Your task to perform on an android device: check storage Image 0: 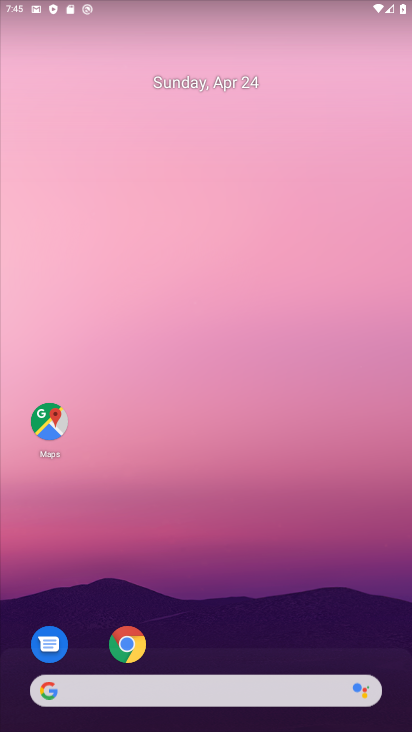
Step 0: drag from (181, 603) to (197, 45)
Your task to perform on an android device: check storage Image 1: 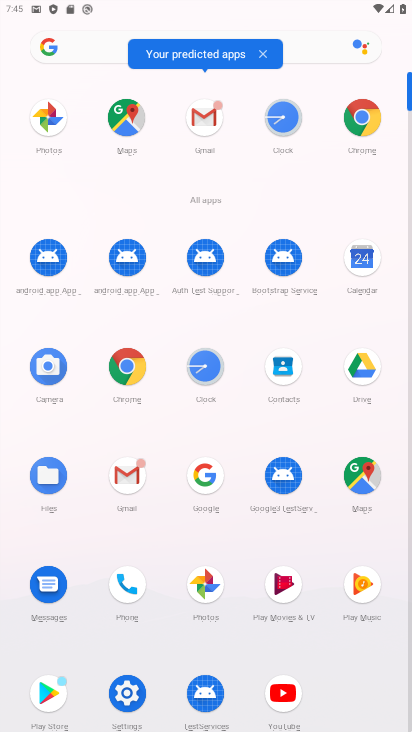
Step 1: click (116, 687)
Your task to perform on an android device: check storage Image 2: 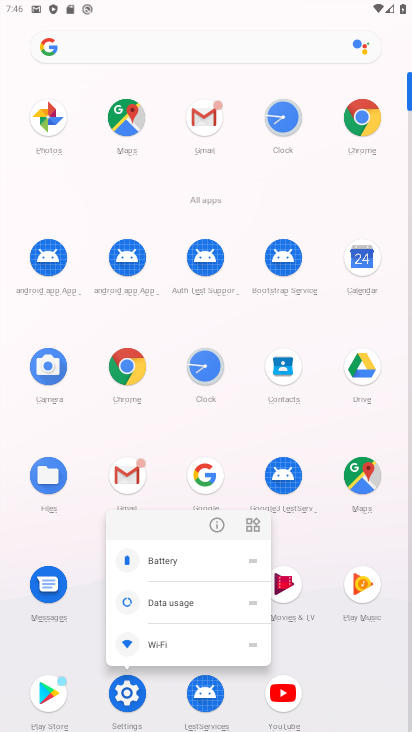
Step 2: click (132, 689)
Your task to perform on an android device: check storage Image 3: 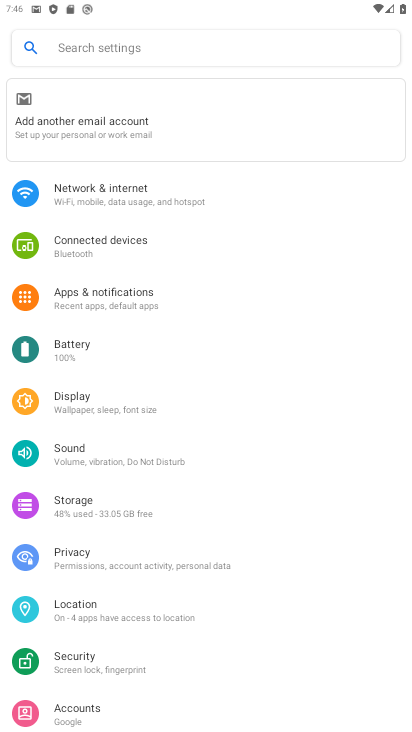
Step 3: click (117, 511)
Your task to perform on an android device: check storage Image 4: 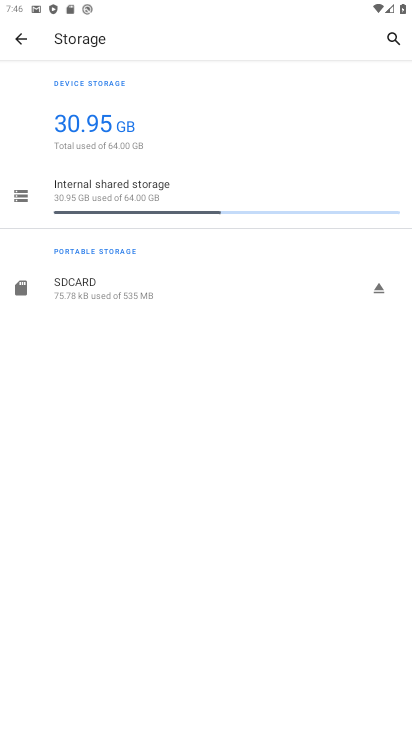
Step 4: click (117, 202)
Your task to perform on an android device: check storage Image 5: 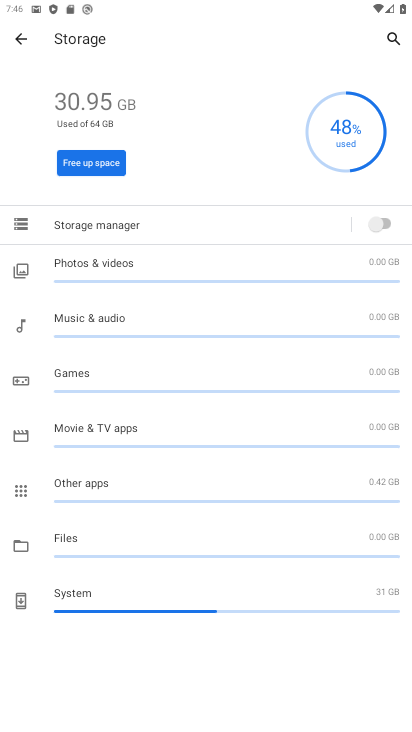
Step 5: task complete